Your task to perform on an android device: search for starred emails in the gmail app Image 0: 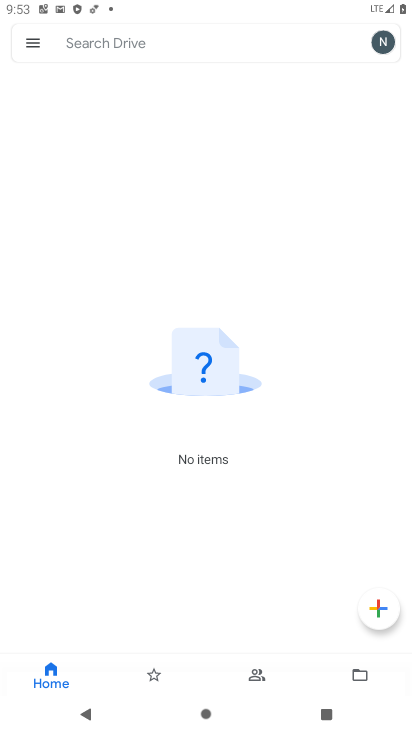
Step 0: press home button
Your task to perform on an android device: search for starred emails in the gmail app Image 1: 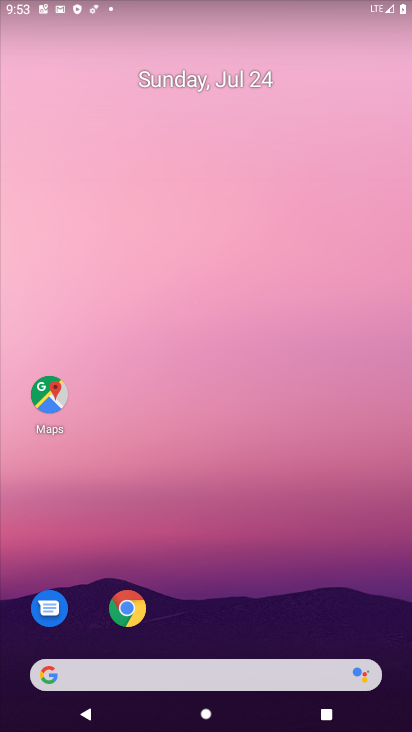
Step 1: drag from (224, 645) to (217, 1)
Your task to perform on an android device: search for starred emails in the gmail app Image 2: 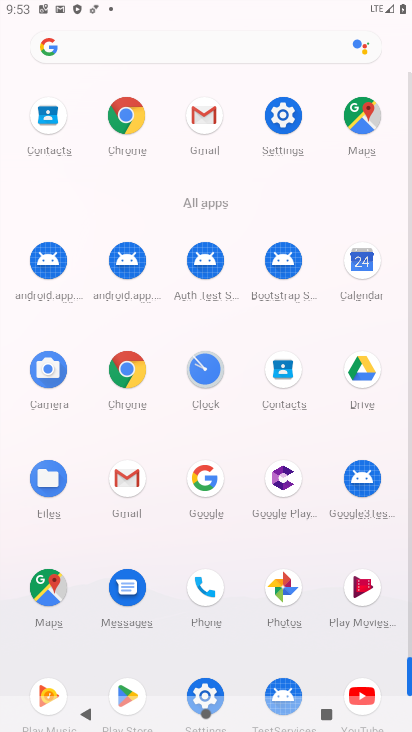
Step 2: click (199, 111)
Your task to perform on an android device: search for starred emails in the gmail app Image 3: 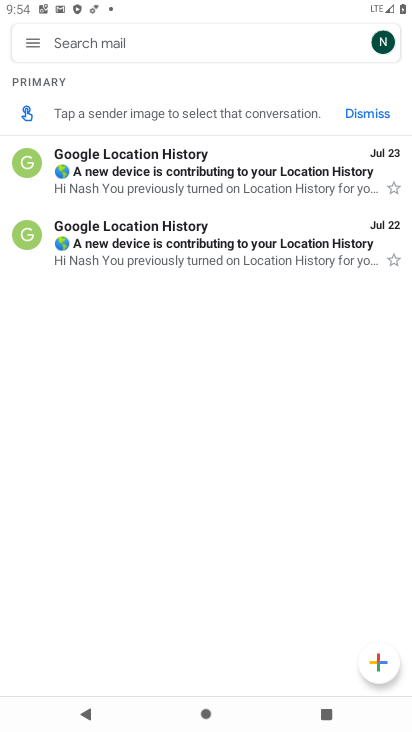
Step 3: click (28, 38)
Your task to perform on an android device: search for starred emails in the gmail app Image 4: 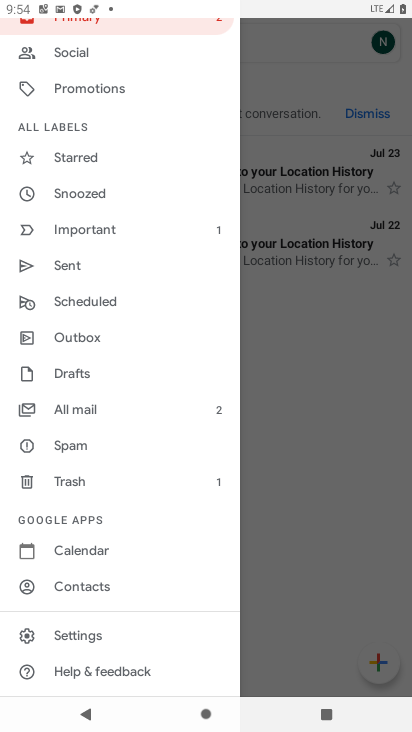
Step 4: click (85, 154)
Your task to perform on an android device: search for starred emails in the gmail app Image 5: 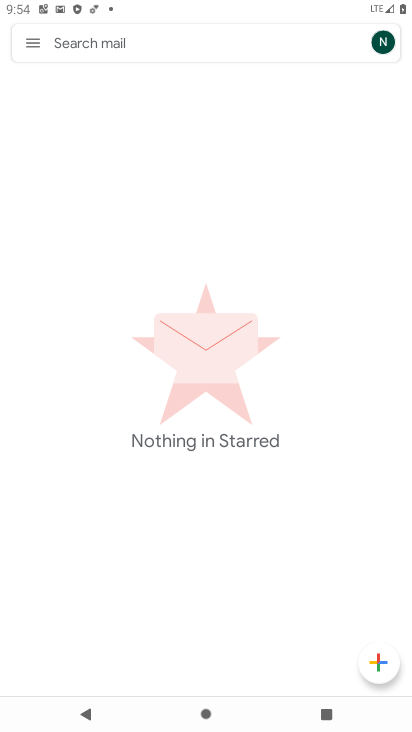
Step 5: task complete